Your task to perform on an android device: find which apps use the phone's location Image 0: 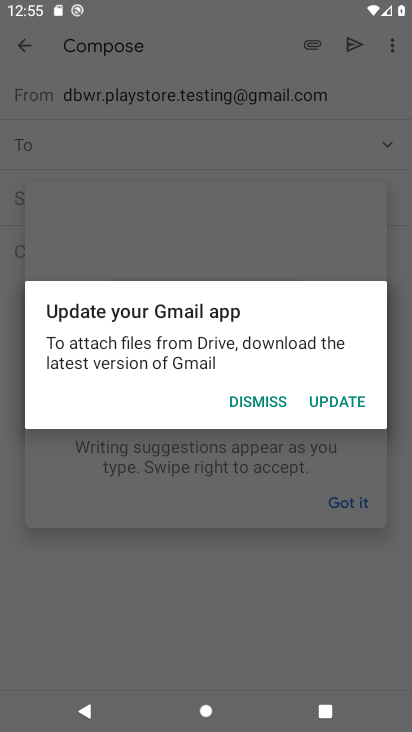
Step 0: press home button
Your task to perform on an android device: find which apps use the phone's location Image 1: 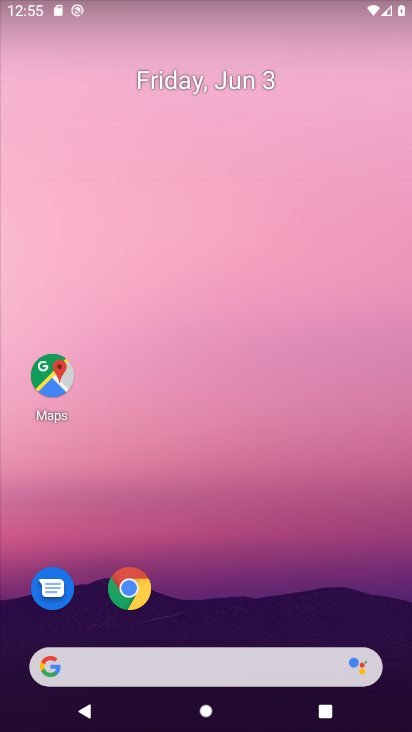
Step 1: drag from (228, 596) to (150, 239)
Your task to perform on an android device: find which apps use the phone's location Image 2: 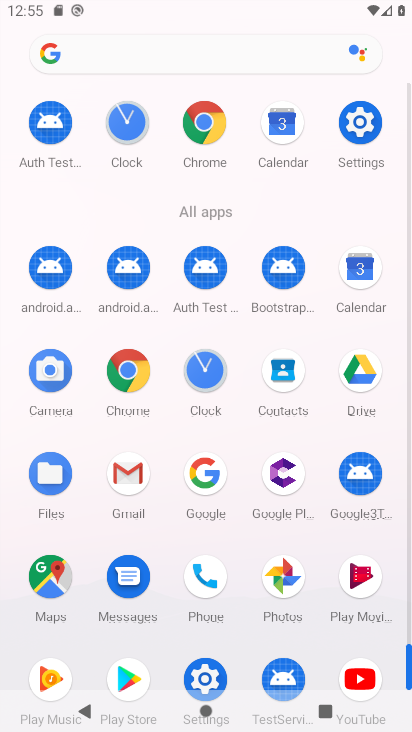
Step 2: click (358, 148)
Your task to perform on an android device: find which apps use the phone's location Image 3: 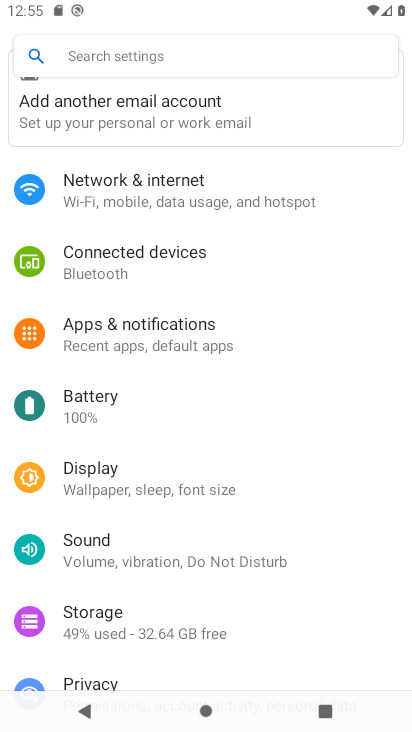
Step 3: drag from (207, 478) to (215, 406)
Your task to perform on an android device: find which apps use the phone's location Image 4: 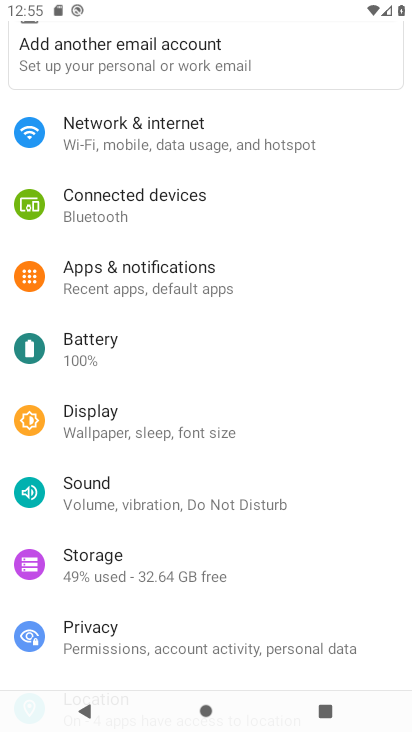
Step 4: drag from (172, 581) to (197, 374)
Your task to perform on an android device: find which apps use the phone's location Image 5: 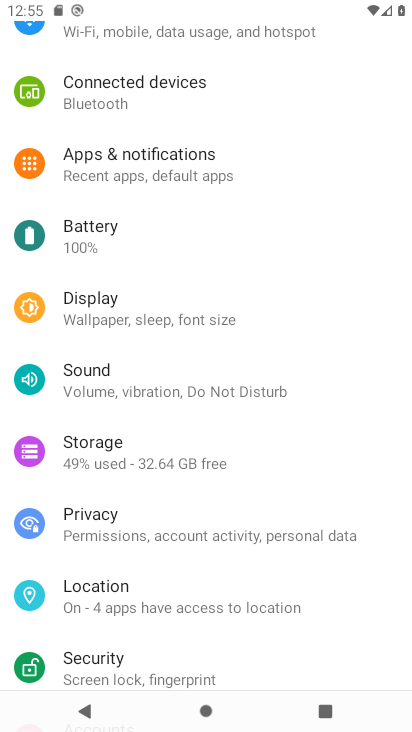
Step 5: click (190, 613)
Your task to perform on an android device: find which apps use the phone's location Image 6: 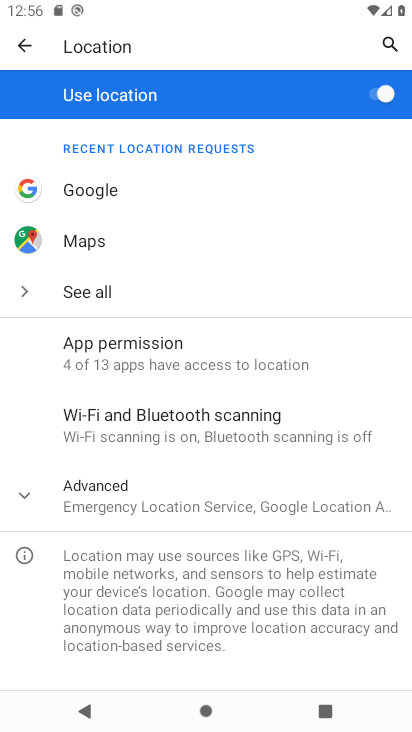
Step 6: click (193, 336)
Your task to perform on an android device: find which apps use the phone's location Image 7: 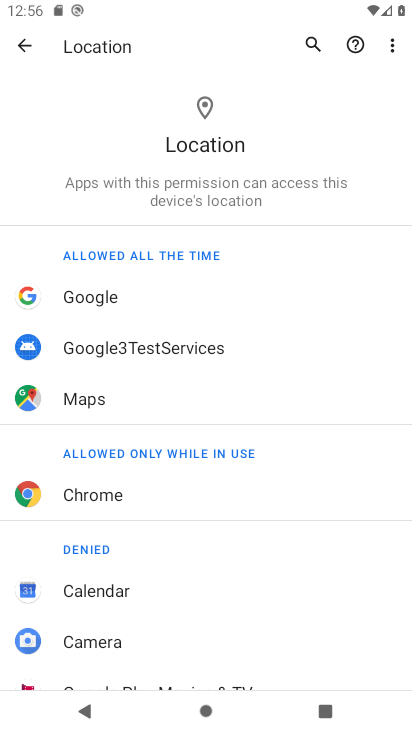
Step 7: task complete